Your task to perform on an android device: Go to internet settings Image 0: 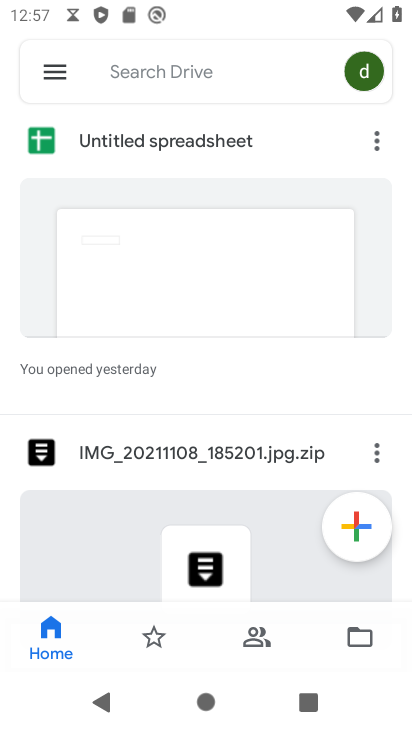
Step 0: press home button
Your task to perform on an android device: Go to internet settings Image 1: 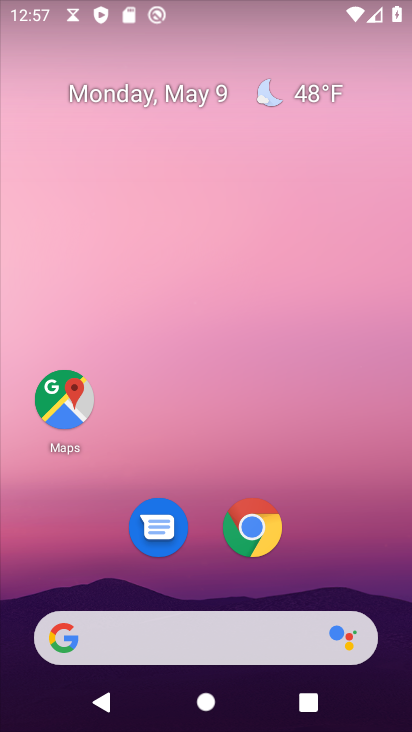
Step 1: drag from (271, 466) to (282, 256)
Your task to perform on an android device: Go to internet settings Image 2: 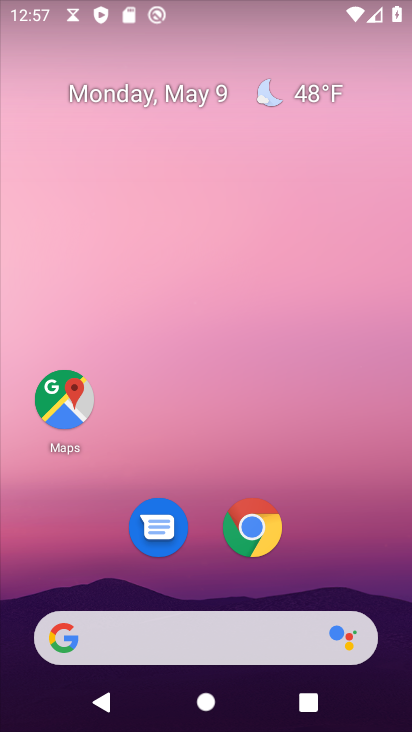
Step 2: drag from (226, 423) to (262, 249)
Your task to perform on an android device: Go to internet settings Image 3: 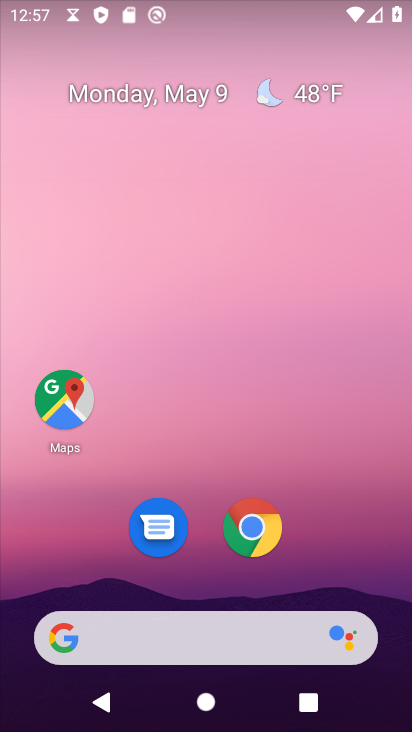
Step 3: drag from (242, 249) to (249, 205)
Your task to perform on an android device: Go to internet settings Image 4: 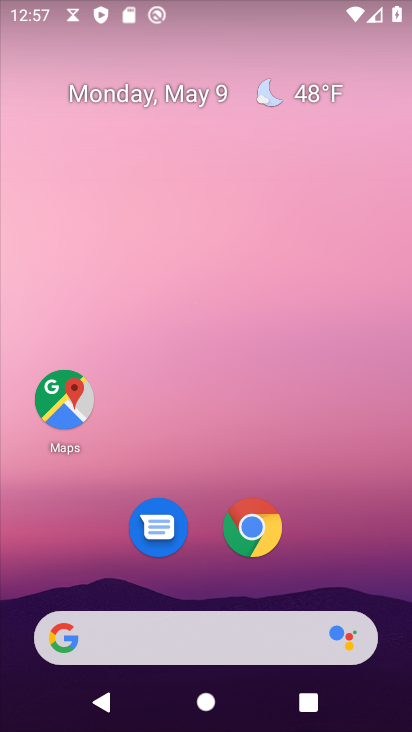
Step 4: drag from (227, 540) to (229, 464)
Your task to perform on an android device: Go to internet settings Image 5: 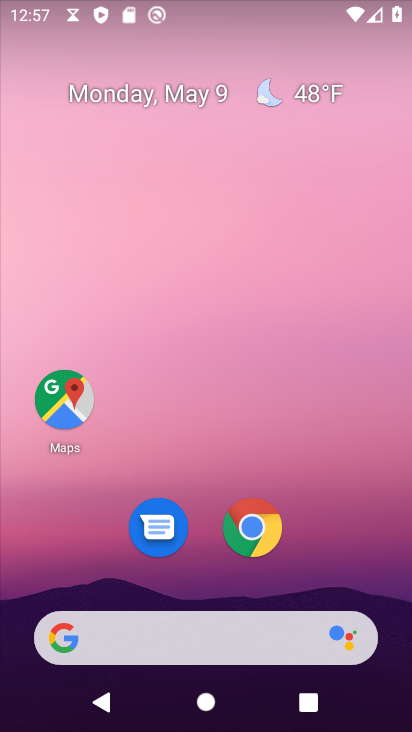
Step 5: drag from (194, 597) to (340, 0)
Your task to perform on an android device: Go to internet settings Image 6: 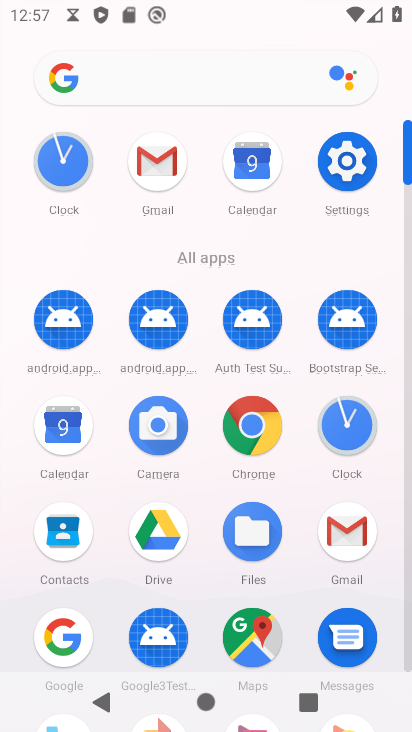
Step 6: click (355, 188)
Your task to perform on an android device: Go to internet settings Image 7: 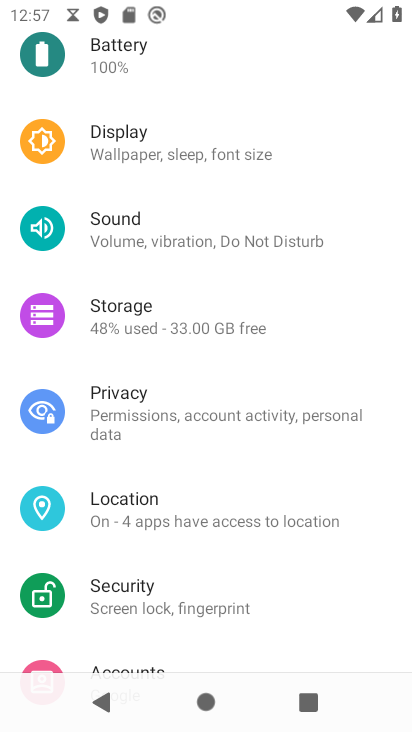
Step 7: drag from (275, 191) to (238, 570)
Your task to perform on an android device: Go to internet settings Image 8: 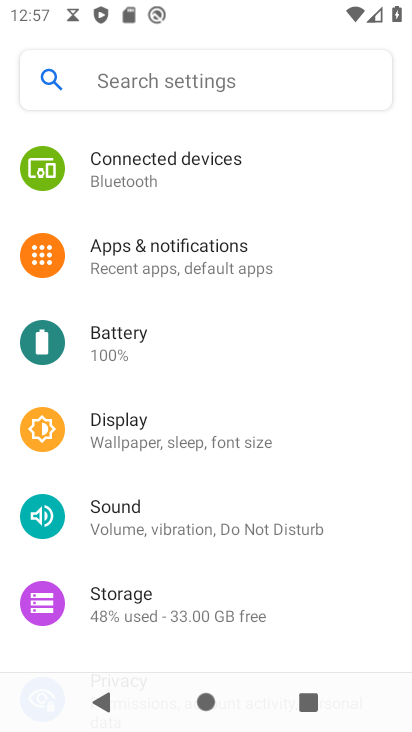
Step 8: drag from (187, 238) to (176, 622)
Your task to perform on an android device: Go to internet settings Image 9: 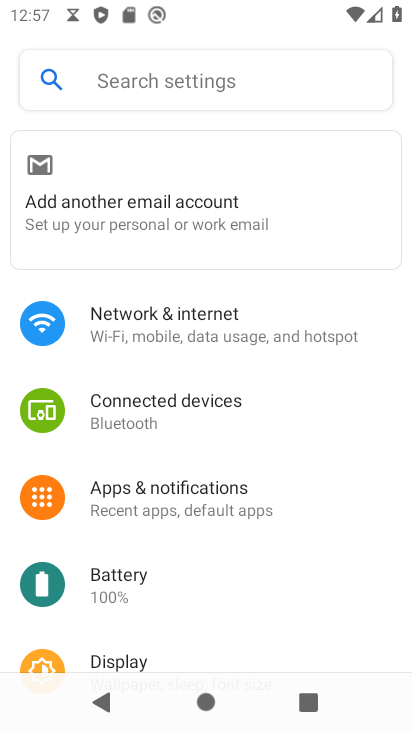
Step 9: click (180, 346)
Your task to perform on an android device: Go to internet settings Image 10: 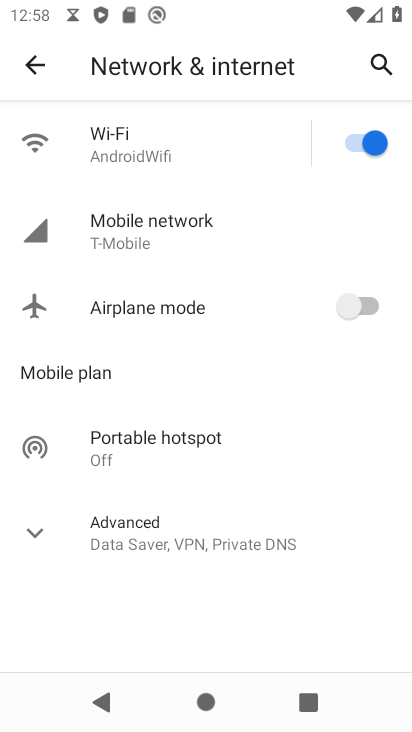
Step 10: task complete